Your task to perform on an android device: open chrome privacy settings Image 0: 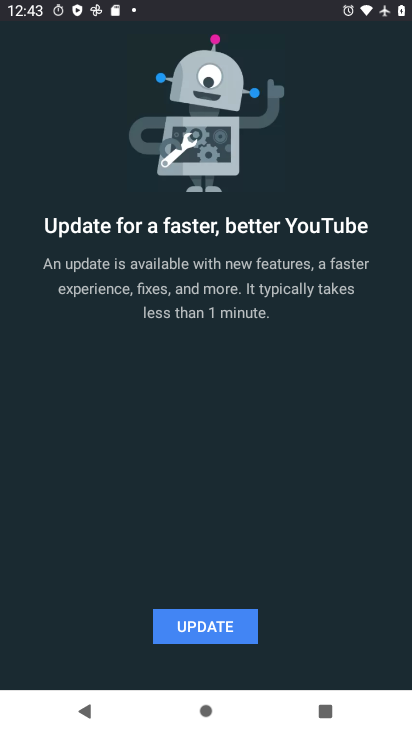
Step 0: press home button
Your task to perform on an android device: open chrome privacy settings Image 1: 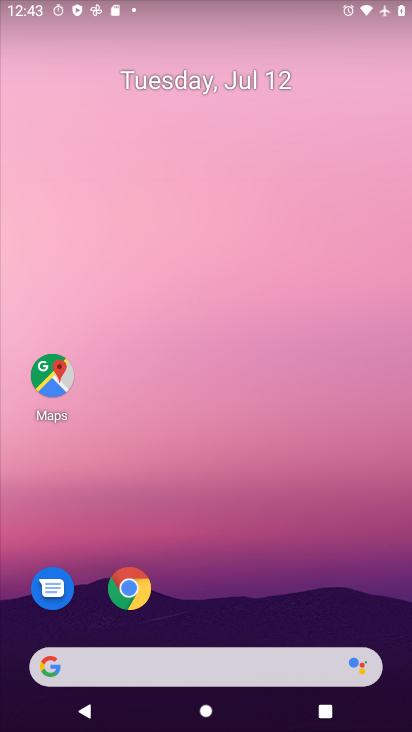
Step 1: click (132, 600)
Your task to perform on an android device: open chrome privacy settings Image 2: 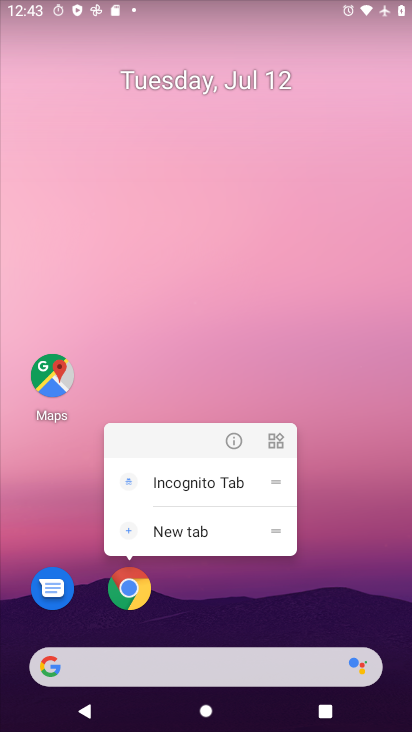
Step 2: click (136, 600)
Your task to perform on an android device: open chrome privacy settings Image 3: 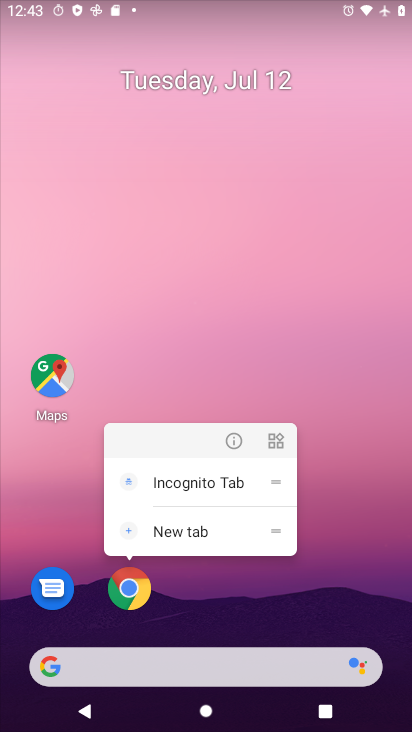
Step 3: click (126, 588)
Your task to perform on an android device: open chrome privacy settings Image 4: 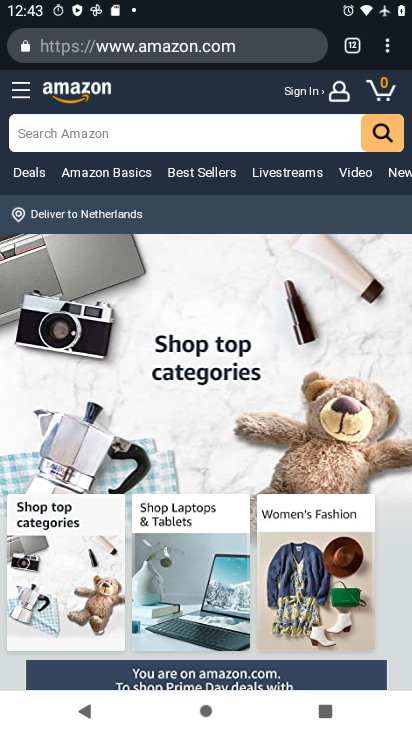
Step 4: drag from (386, 47) to (273, 562)
Your task to perform on an android device: open chrome privacy settings Image 5: 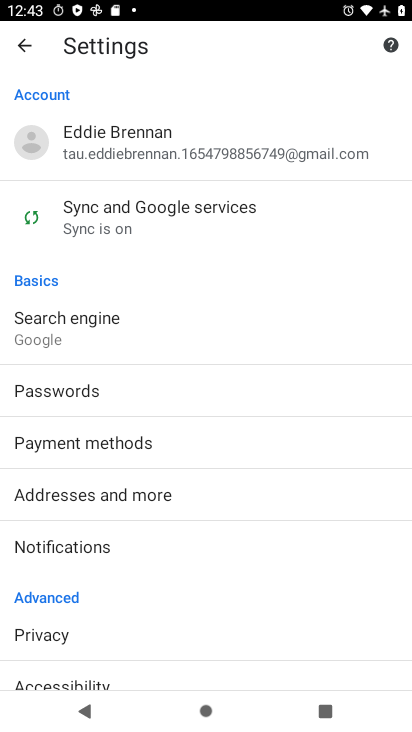
Step 5: click (69, 637)
Your task to perform on an android device: open chrome privacy settings Image 6: 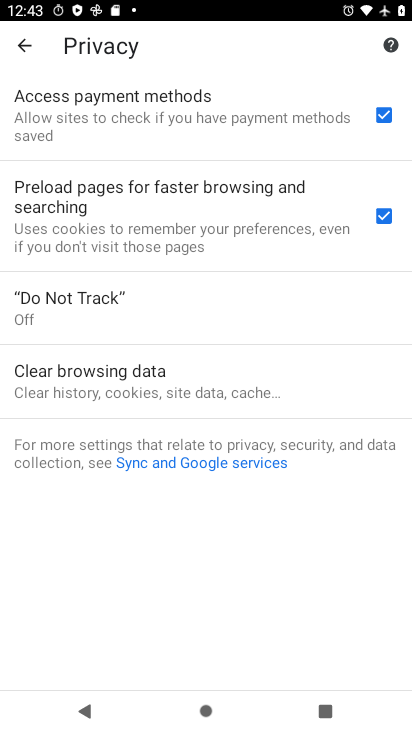
Step 6: task complete